Your task to perform on an android device: toggle pop-ups in chrome Image 0: 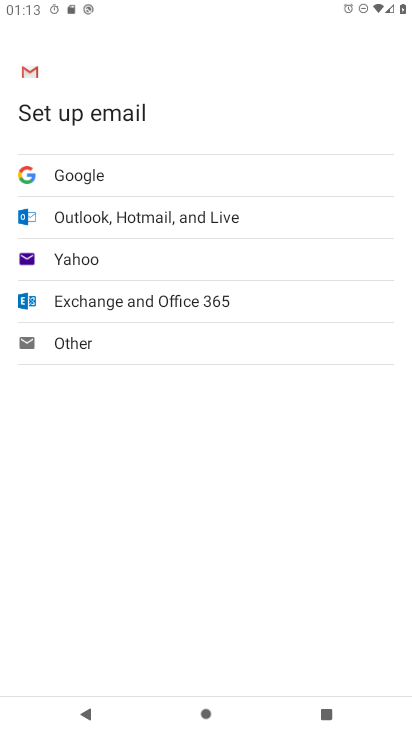
Step 0: press home button
Your task to perform on an android device: toggle pop-ups in chrome Image 1: 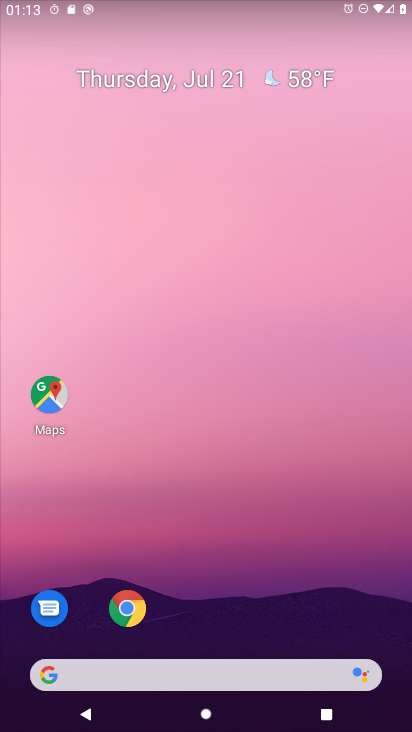
Step 1: drag from (266, 627) to (248, 0)
Your task to perform on an android device: toggle pop-ups in chrome Image 2: 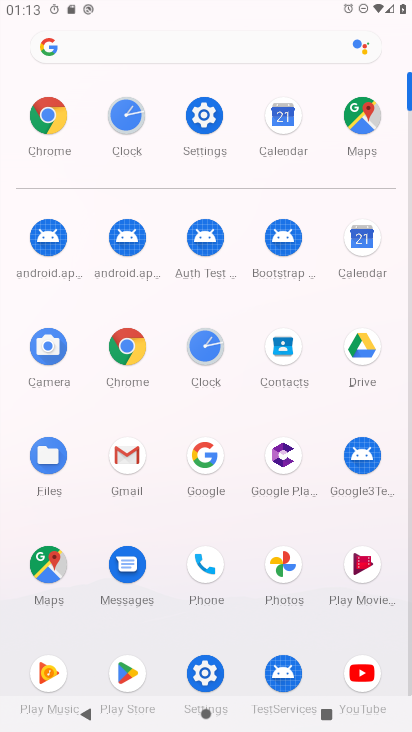
Step 2: click (36, 104)
Your task to perform on an android device: toggle pop-ups in chrome Image 3: 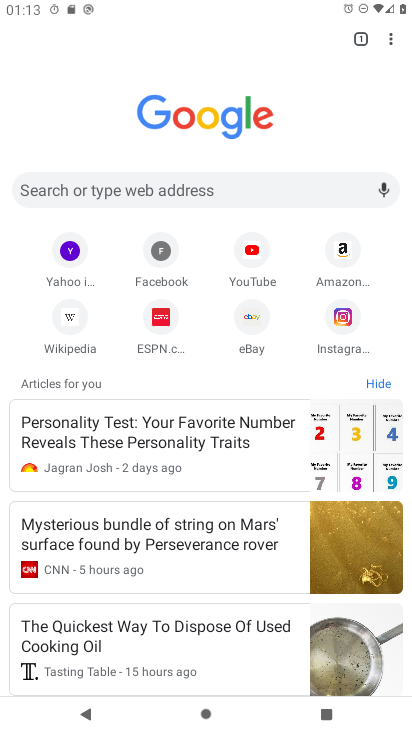
Step 3: drag from (392, 37) to (262, 337)
Your task to perform on an android device: toggle pop-ups in chrome Image 4: 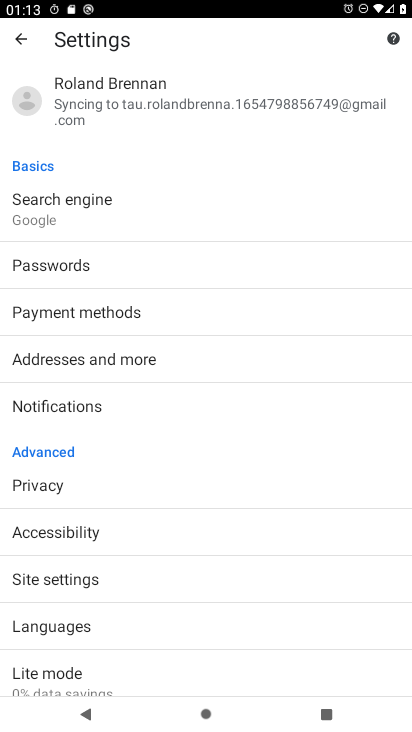
Step 4: click (34, 579)
Your task to perform on an android device: toggle pop-ups in chrome Image 5: 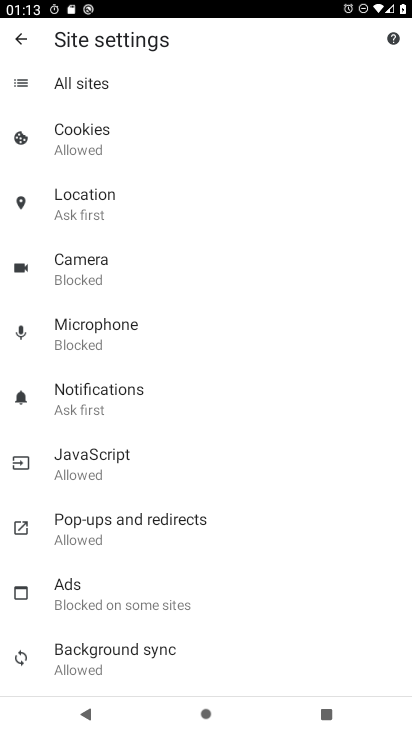
Step 5: click (90, 510)
Your task to perform on an android device: toggle pop-ups in chrome Image 6: 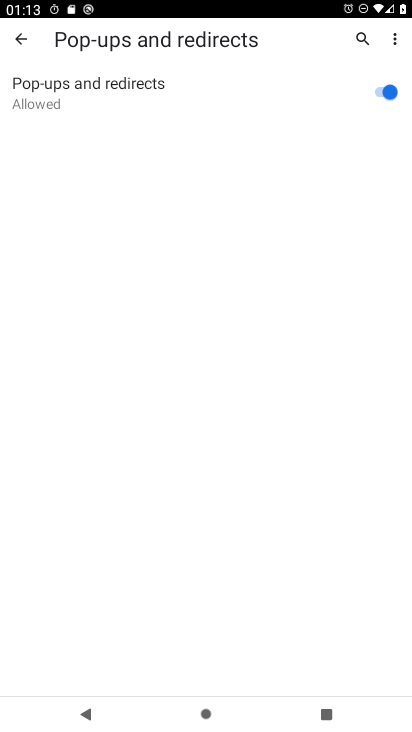
Step 6: click (394, 85)
Your task to perform on an android device: toggle pop-ups in chrome Image 7: 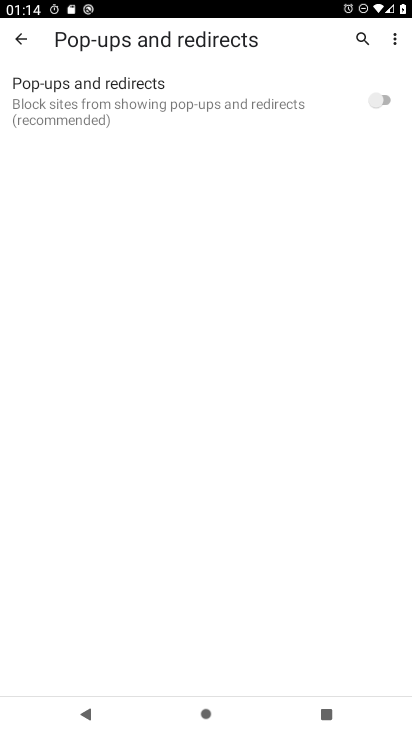
Step 7: press home button
Your task to perform on an android device: toggle pop-ups in chrome Image 8: 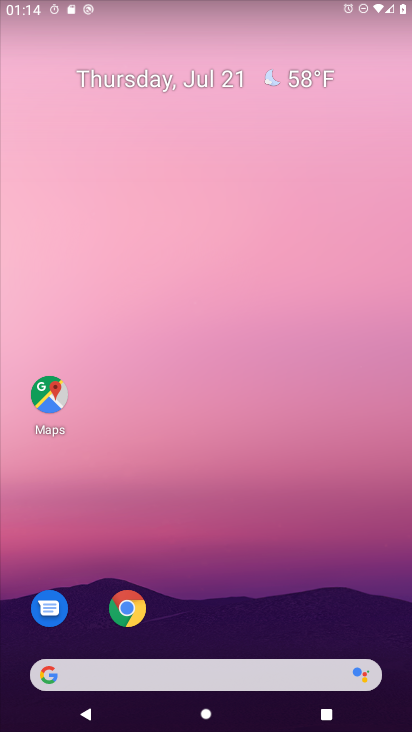
Step 8: drag from (294, 631) to (136, 1)
Your task to perform on an android device: toggle pop-ups in chrome Image 9: 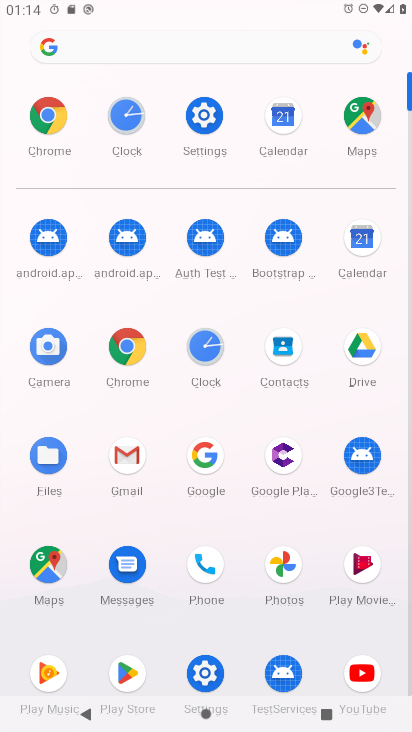
Step 9: click (57, 113)
Your task to perform on an android device: toggle pop-ups in chrome Image 10: 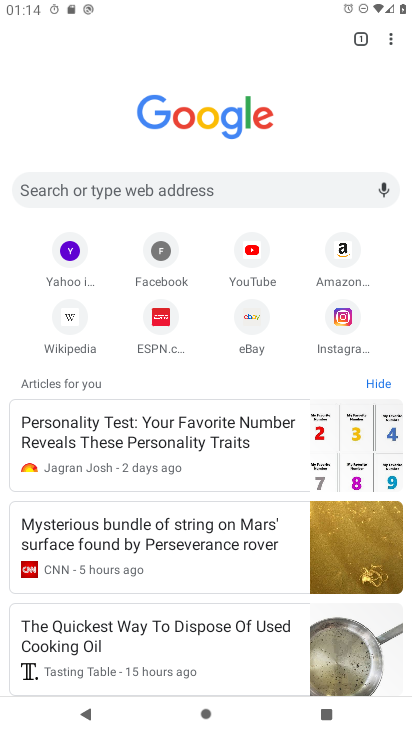
Step 10: drag from (386, 41) to (259, 327)
Your task to perform on an android device: toggle pop-ups in chrome Image 11: 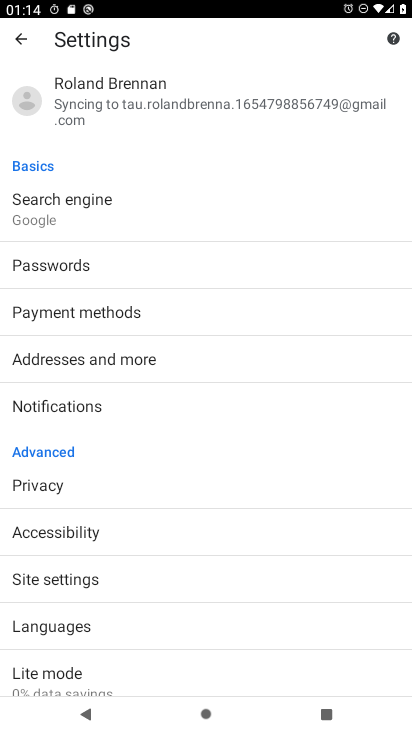
Step 11: click (73, 580)
Your task to perform on an android device: toggle pop-ups in chrome Image 12: 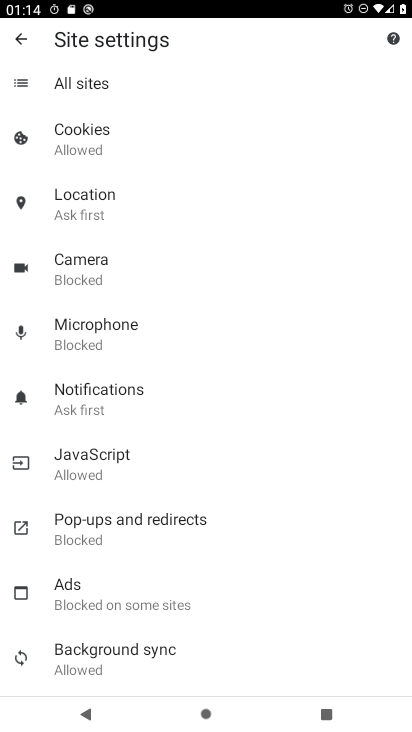
Step 12: click (105, 517)
Your task to perform on an android device: toggle pop-ups in chrome Image 13: 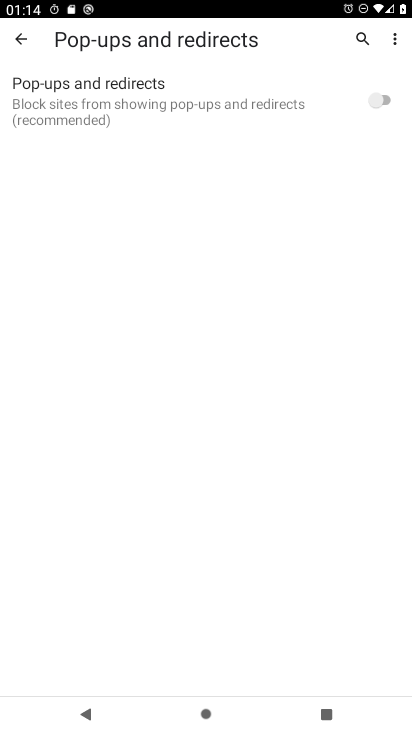
Step 13: click (380, 93)
Your task to perform on an android device: toggle pop-ups in chrome Image 14: 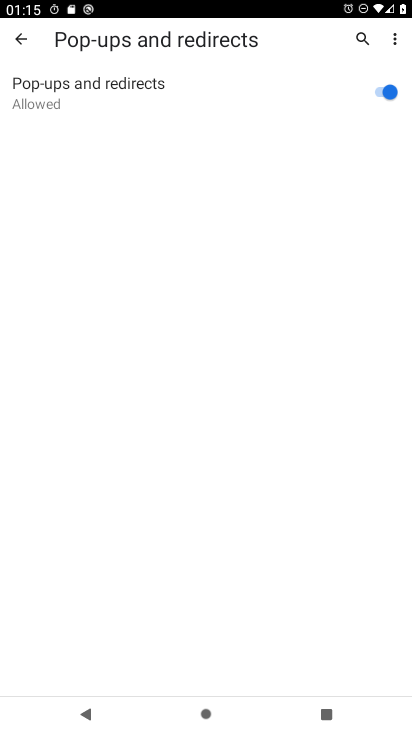
Step 14: task complete